Your task to perform on an android device: turn off javascript in the chrome app Image 0: 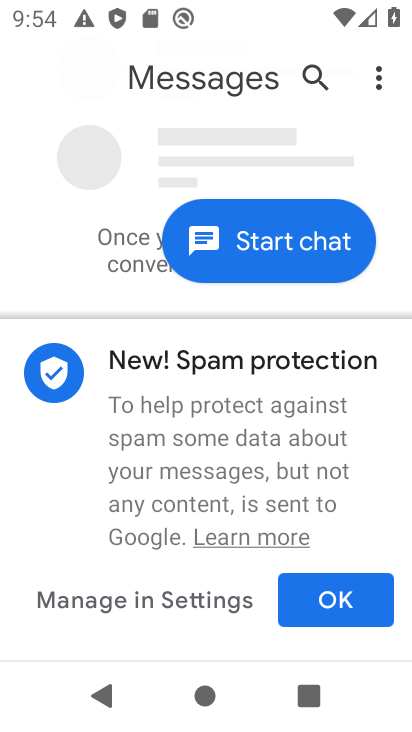
Step 0: press home button
Your task to perform on an android device: turn off javascript in the chrome app Image 1: 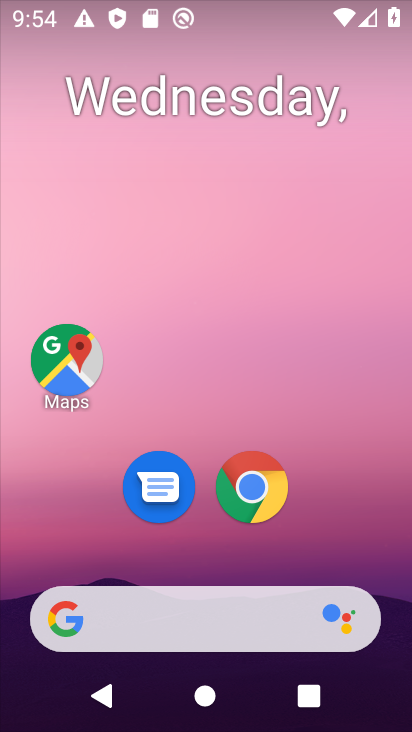
Step 1: click (247, 491)
Your task to perform on an android device: turn off javascript in the chrome app Image 2: 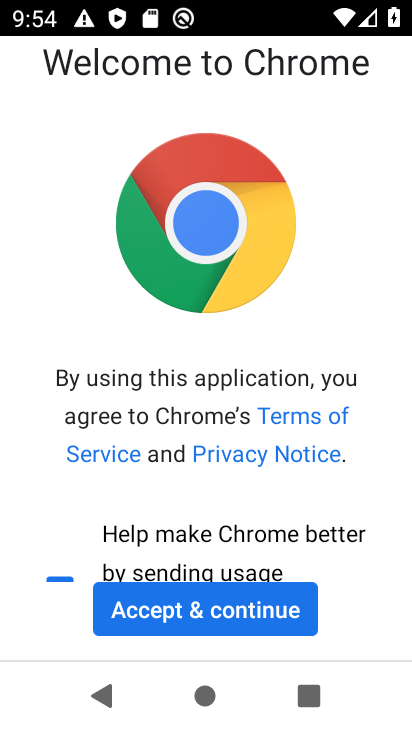
Step 2: click (203, 606)
Your task to perform on an android device: turn off javascript in the chrome app Image 3: 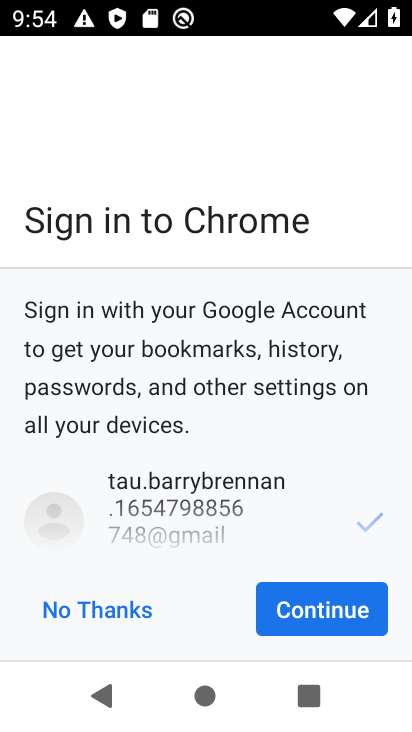
Step 3: click (317, 608)
Your task to perform on an android device: turn off javascript in the chrome app Image 4: 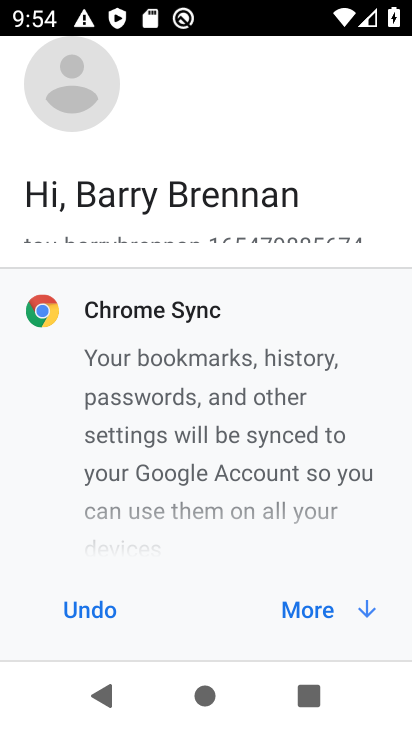
Step 4: click (369, 608)
Your task to perform on an android device: turn off javascript in the chrome app Image 5: 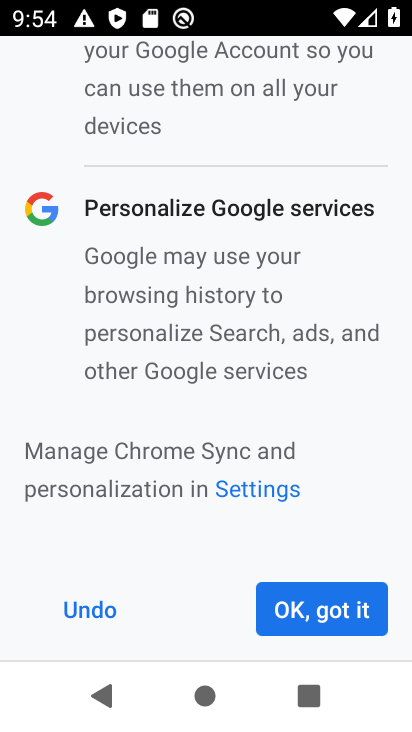
Step 5: click (326, 612)
Your task to perform on an android device: turn off javascript in the chrome app Image 6: 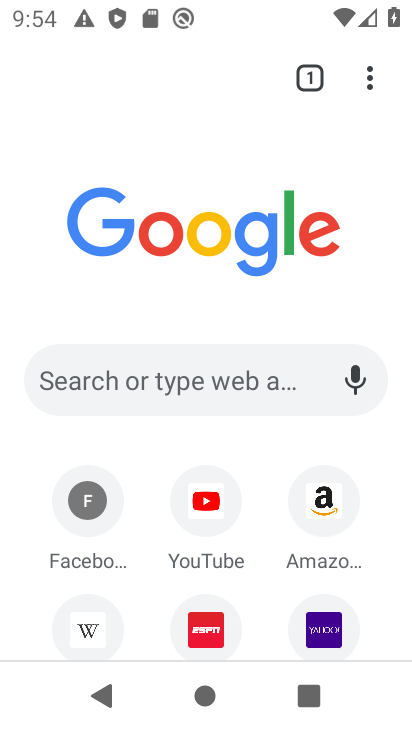
Step 6: click (367, 89)
Your task to perform on an android device: turn off javascript in the chrome app Image 7: 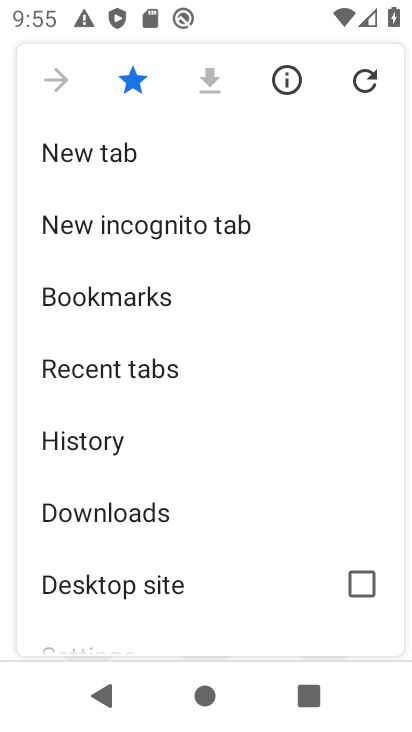
Step 7: drag from (208, 525) to (196, 344)
Your task to perform on an android device: turn off javascript in the chrome app Image 8: 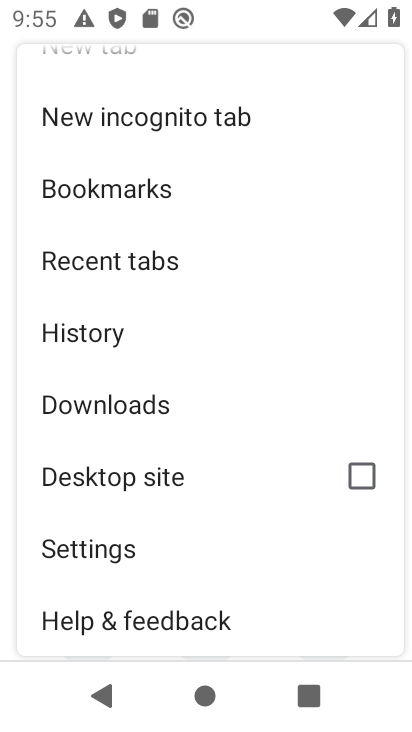
Step 8: click (109, 550)
Your task to perform on an android device: turn off javascript in the chrome app Image 9: 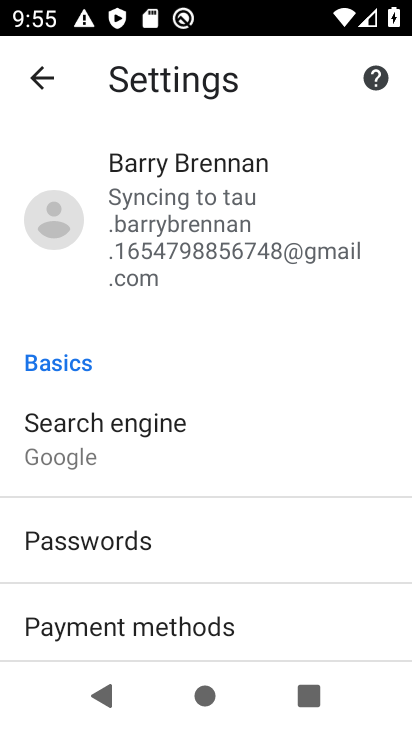
Step 9: drag from (188, 562) to (151, 236)
Your task to perform on an android device: turn off javascript in the chrome app Image 10: 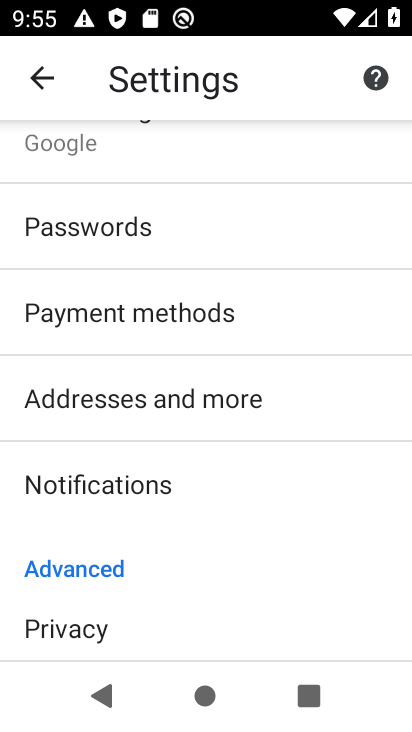
Step 10: drag from (196, 536) to (201, 185)
Your task to perform on an android device: turn off javascript in the chrome app Image 11: 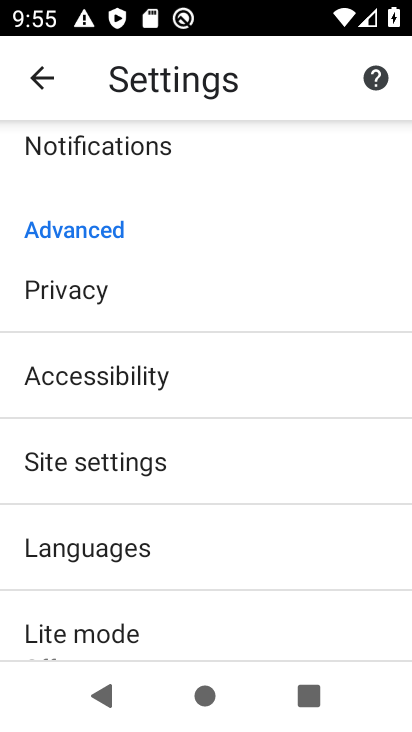
Step 11: click (92, 458)
Your task to perform on an android device: turn off javascript in the chrome app Image 12: 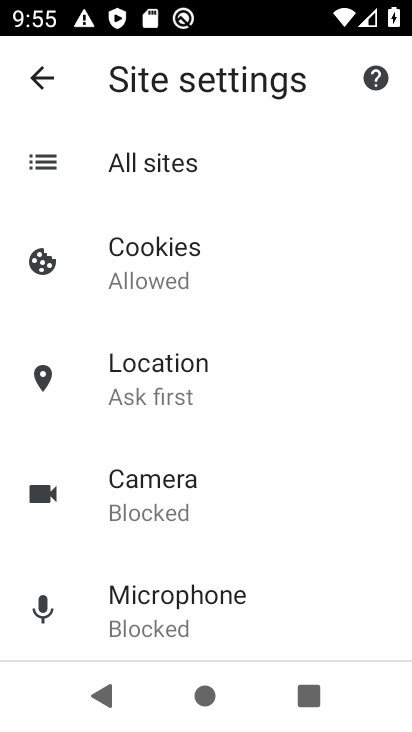
Step 12: drag from (250, 525) to (240, 307)
Your task to perform on an android device: turn off javascript in the chrome app Image 13: 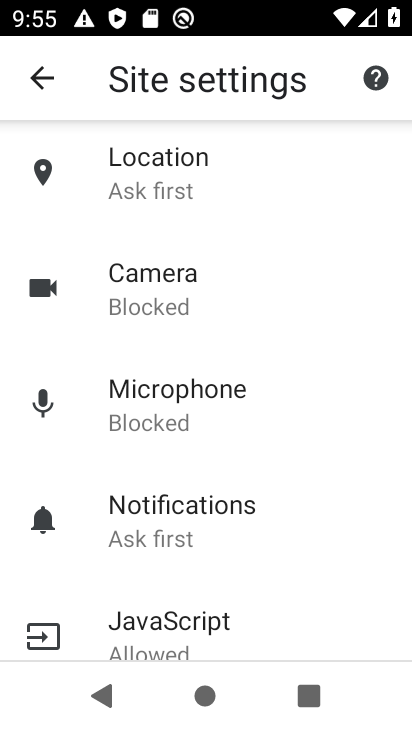
Step 13: click (191, 625)
Your task to perform on an android device: turn off javascript in the chrome app Image 14: 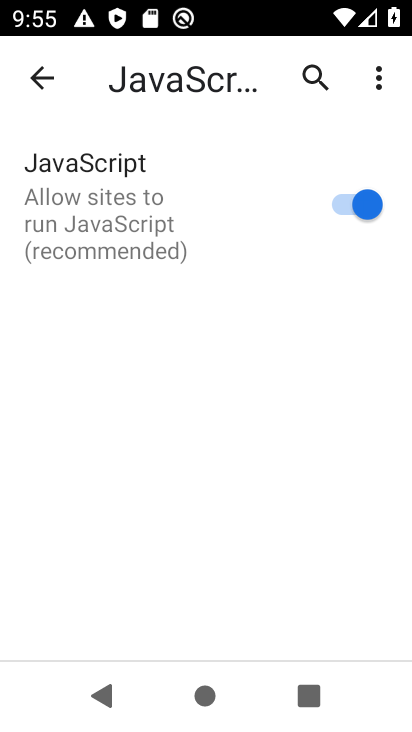
Step 14: click (356, 206)
Your task to perform on an android device: turn off javascript in the chrome app Image 15: 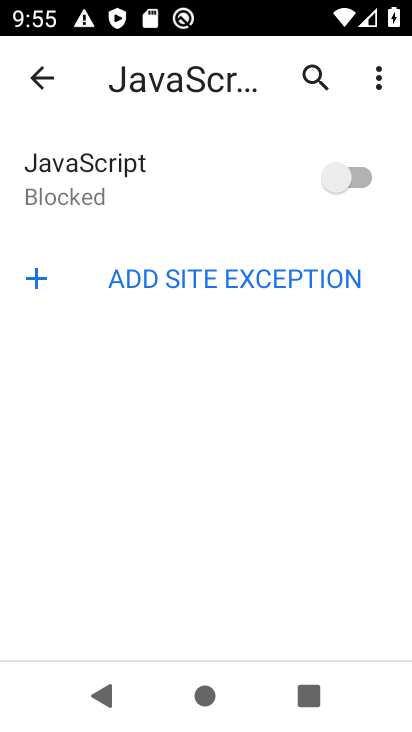
Step 15: task complete